Your task to perform on an android device: toggle data saver in the chrome app Image 0: 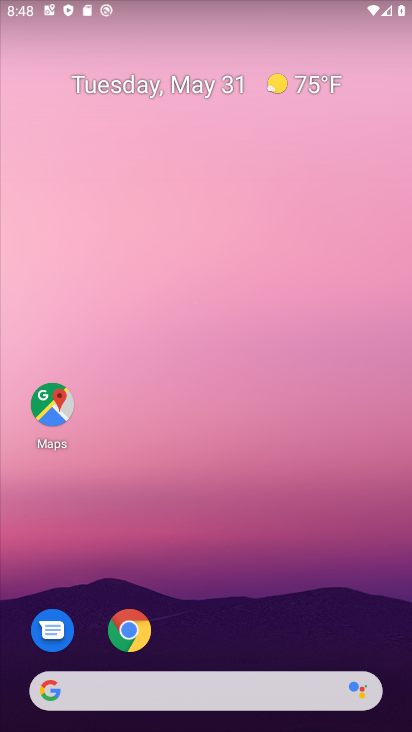
Step 0: drag from (211, 653) to (275, 118)
Your task to perform on an android device: toggle data saver in the chrome app Image 1: 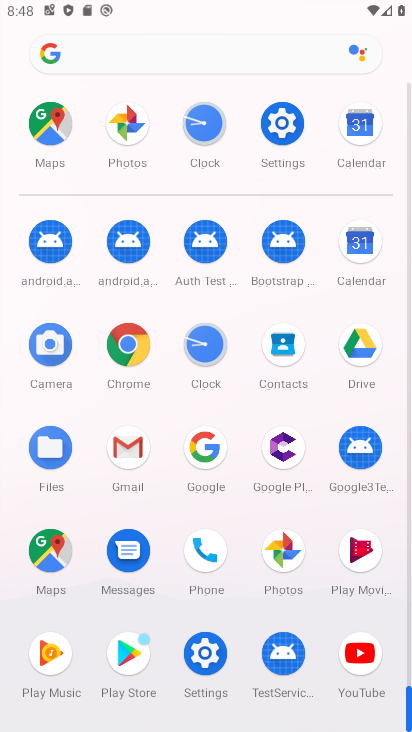
Step 1: click (128, 368)
Your task to perform on an android device: toggle data saver in the chrome app Image 2: 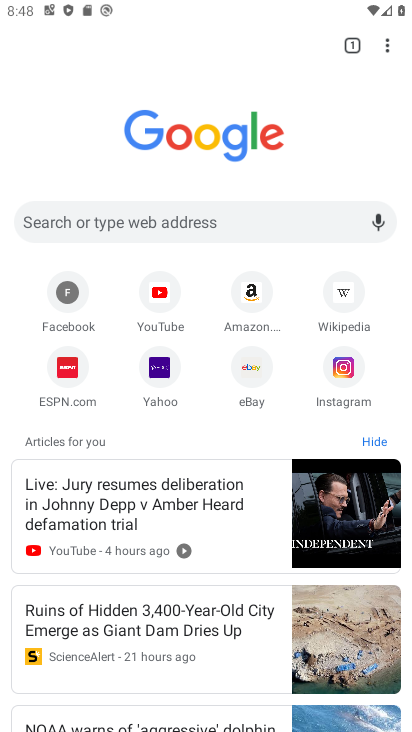
Step 2: click (391, 51)
Your task to perform on an android device: toggle data saver in the chrome app Image 3: 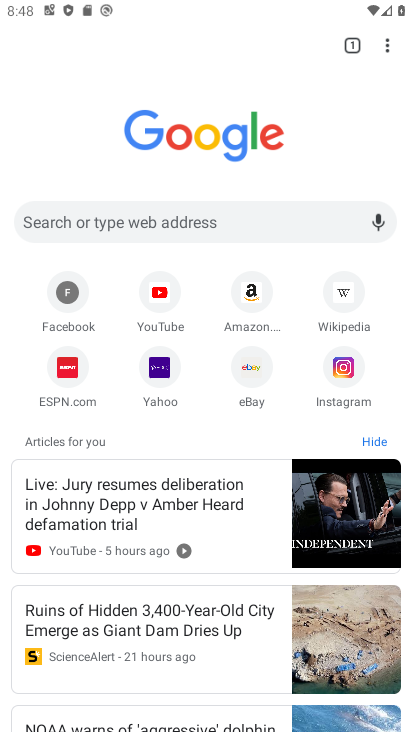
Step 3: click (384, 48)
Your task to perform on an android device: toggle data saver in the chrome app Image 4: 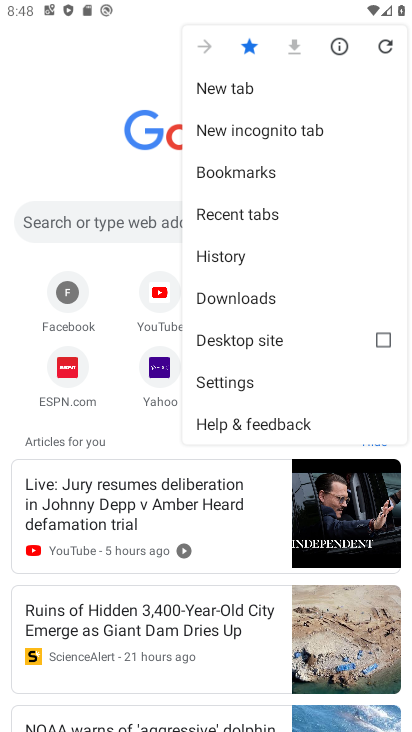
Step 4: click (244, 379)
Your task to perform on an android device: toggle data saver in the chrome app Image 5: 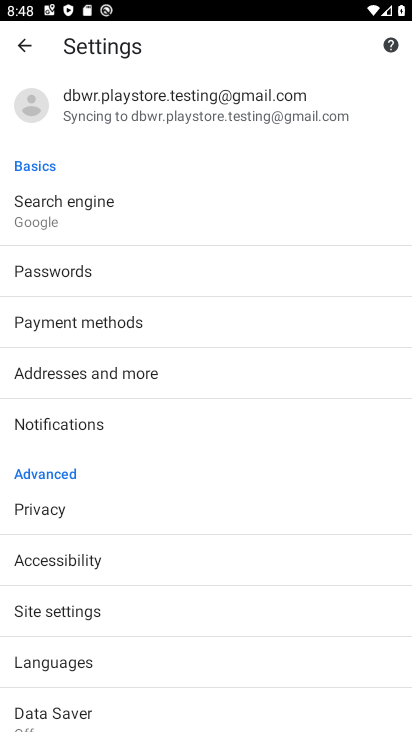
Step 5: drag from (110, 644) to (170, 355)
Your task to perform on an android device: toggle data saver in the chrome app Image 6: 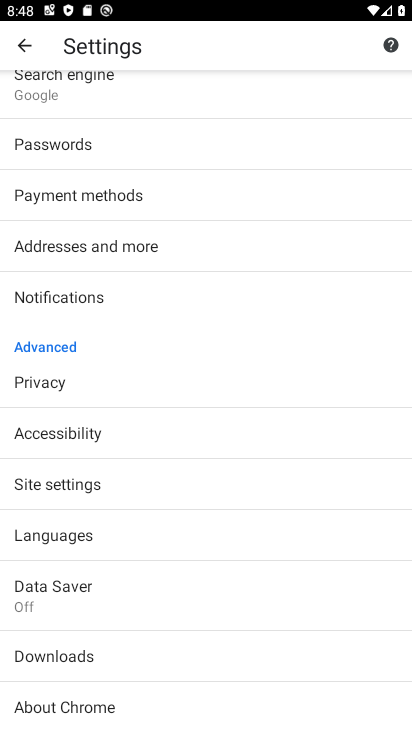
Step 6: click (64, 593)
Your task to perform on an android device: toggle data saver in the chrome app Image 7: 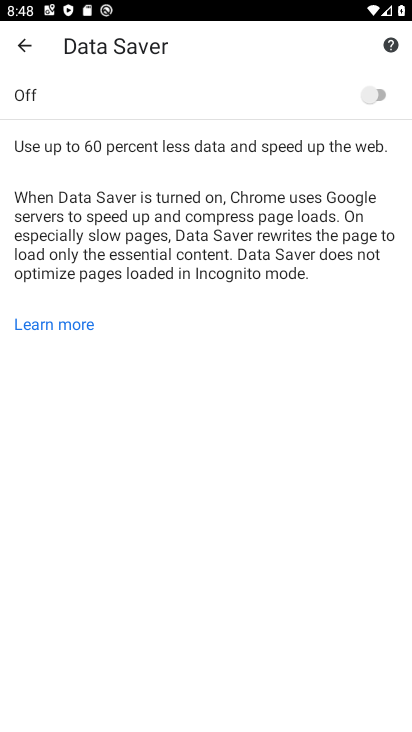
Step 7: click (386, 95)
Your task to perform on an android device: toggle data saver in the chrome app Image 8: 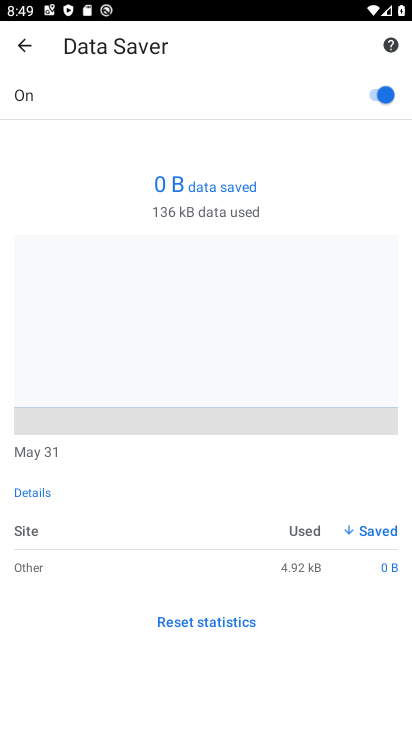
Step 8: task complete